Your task to perform on an android device: toggle improve location accuracy Image 0: 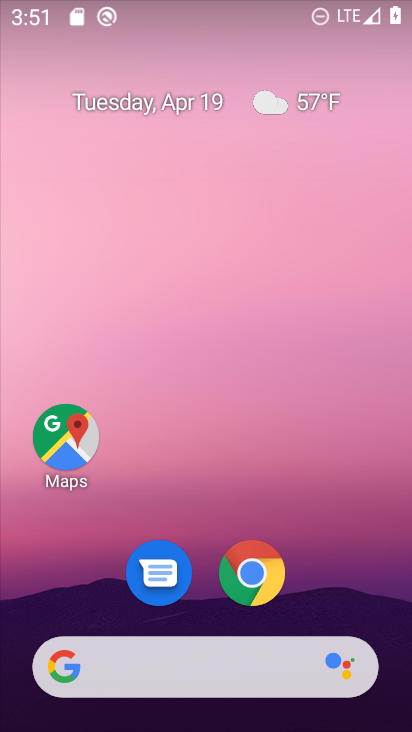
Step 0: drag from (368, 618) to (23, 22)
Your task to perform on an android device: toggle improve location accuracy Image 1: 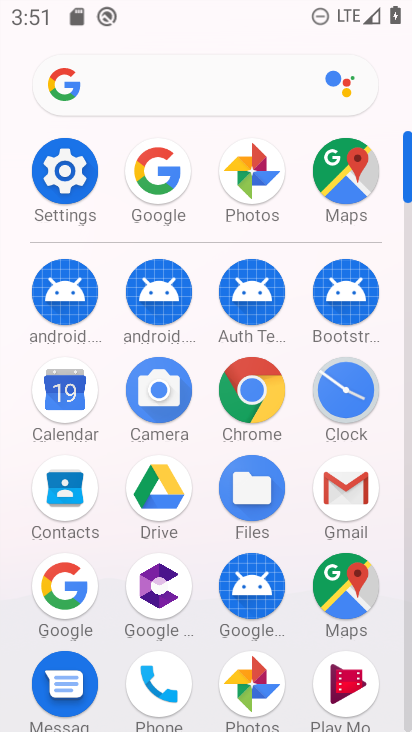
Step 1: click (66, 180)
Your task to perform on an android device: toggle improve location accuracy Image 2: 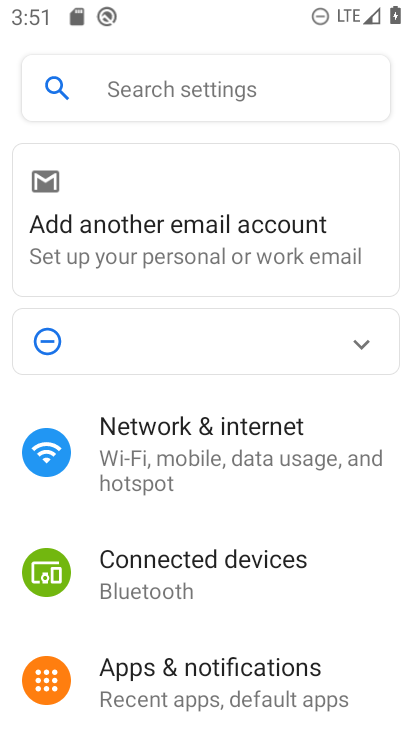
Step 2: drag from (345, 621) to (319, 137)
Your task to perform on an android device: toggle improve location accuracy Image 3: 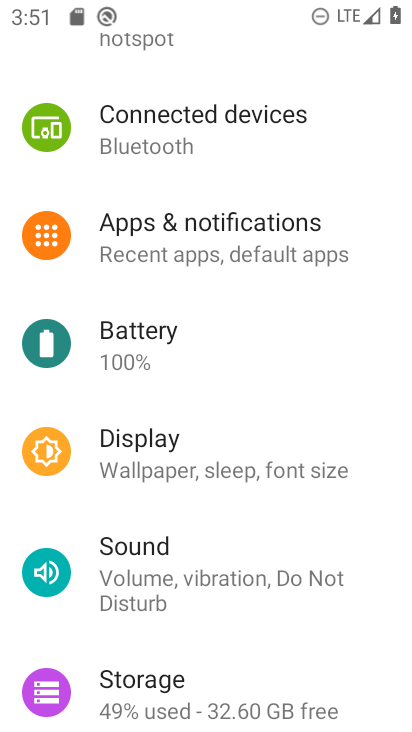
Step 3: drag from (376, 479) to (338, 153)
Your task to perform on an android device: toggle improve location accuracy Image 4: 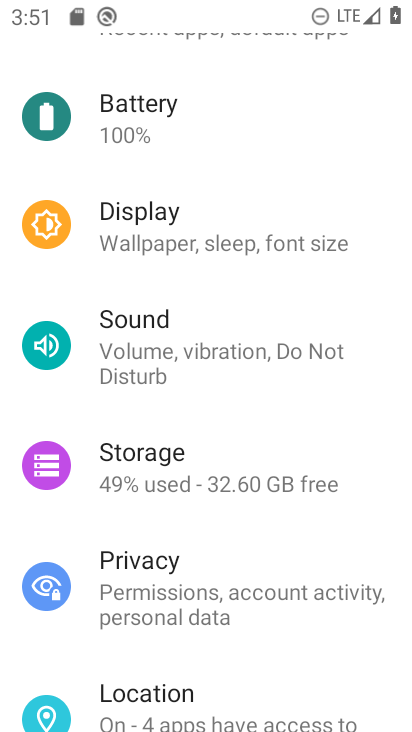
Step 4: drag from (376, 531) to (333, 248)
Your task to perform on an android device: toggle improve location accuracy Image 5: 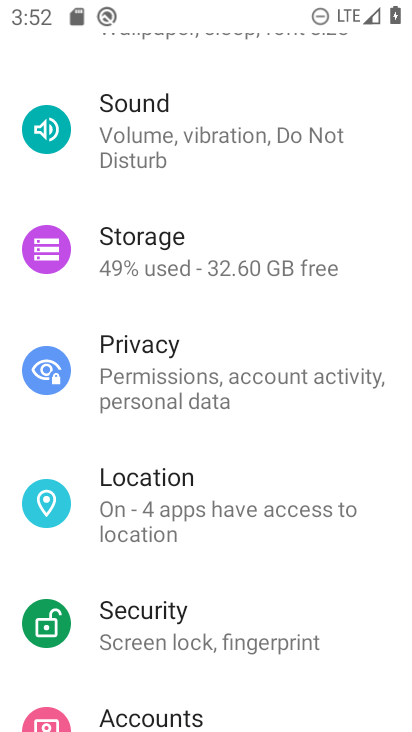
Step 5: click (157, 514)
Your task to perform on an android device: toggle improve location accuracy Image 6: 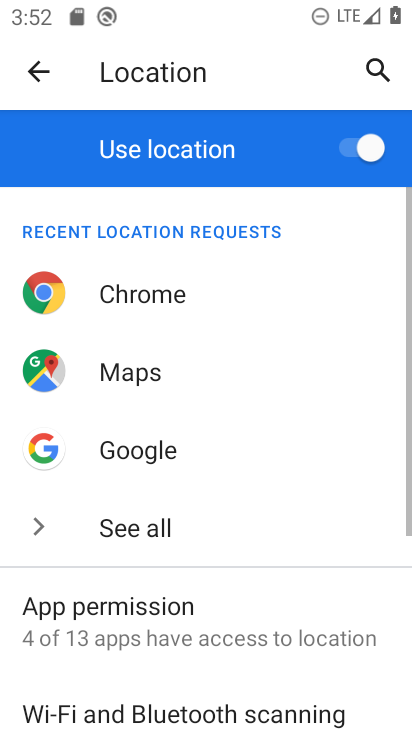
Step 6: drag from (237, 599) to (219, 172)
Your task to perform on an android device: toggle improve location accuracy Image 7: 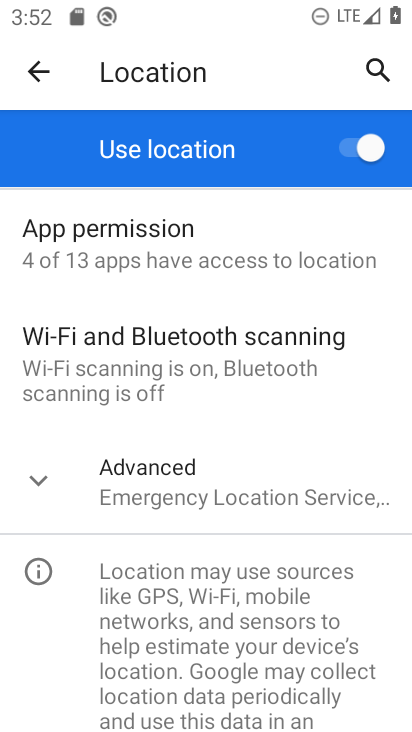
Step 7: click (40, 483)
Your task to perform on an android device: toggle improve location accuracy Image 8: 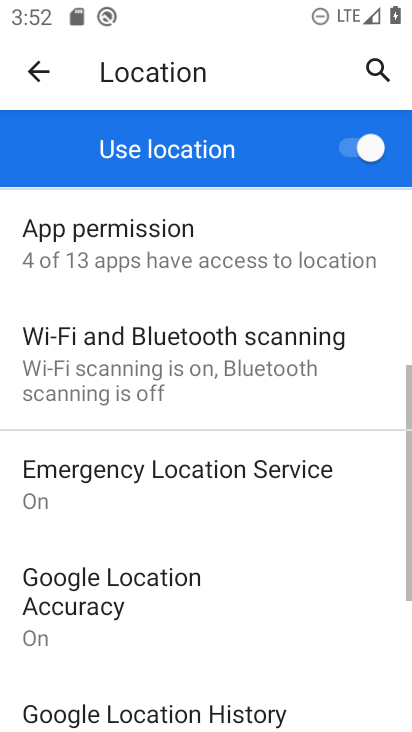
Step 8: drag from (240, 558) to (230, 265)
Your task to perform on an android device: toggle improve location accuracy Image 9: 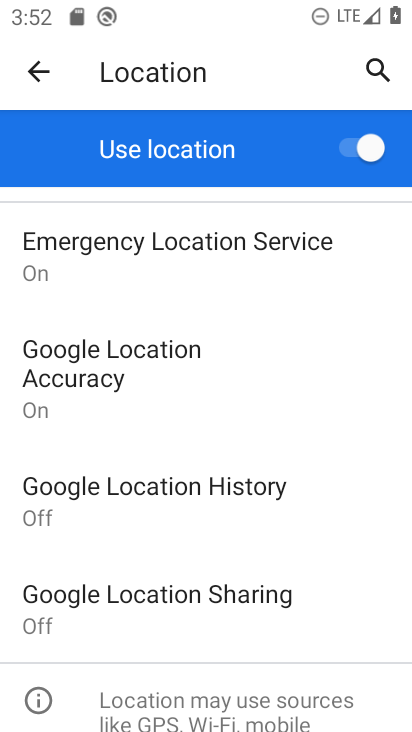
Step 9: click (53, 364)
Your task to perform on an android device: toggle improve location accuracy Image 10: 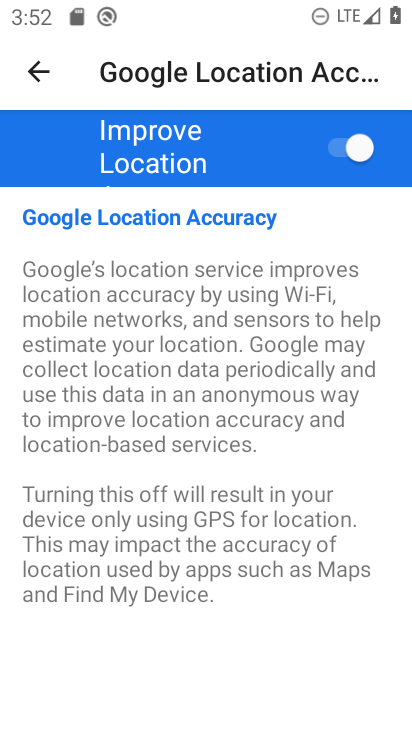
Step 10: click (354, 152)
Your task to perform on an android device: toggle improve location accuracy Image 11: 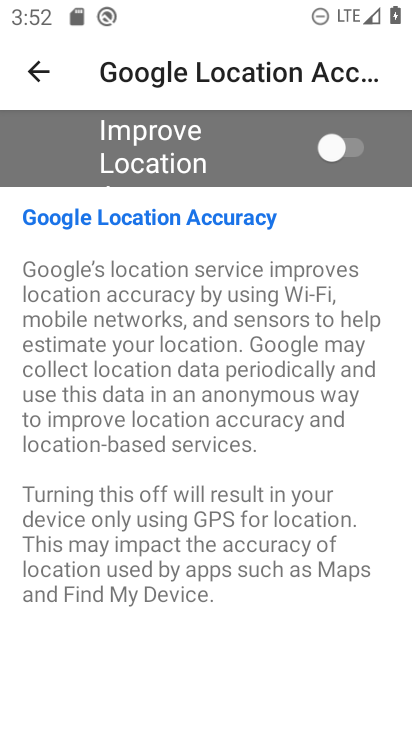
Step 11: task complete